Your task to perform on an android device: Go to sound settings Image 0: 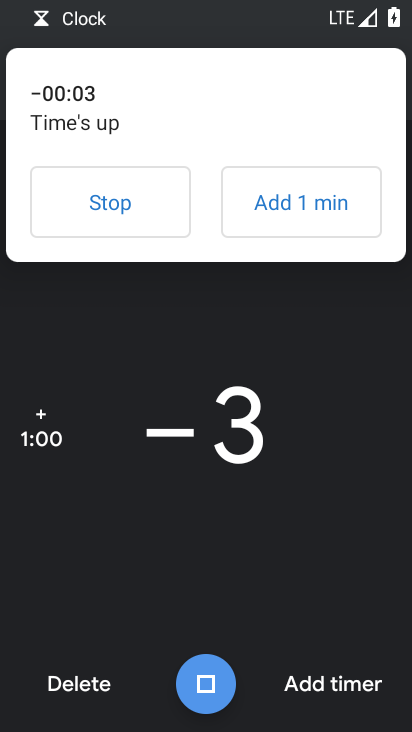
Step 0: click (131, 206)
Your task to perform on an android device: Go to sound settings Image 1: 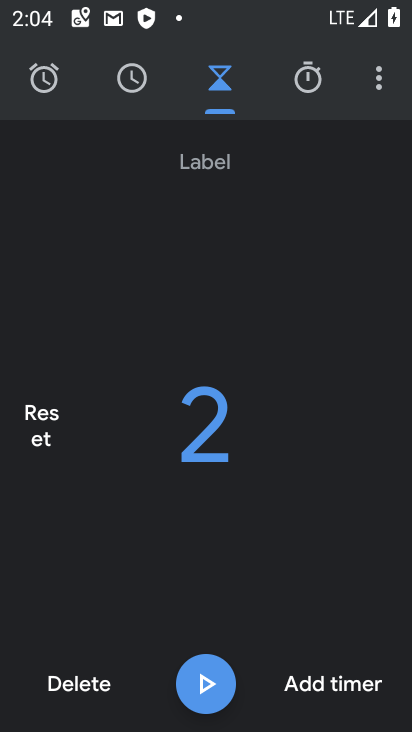
Step 1: press home button
Your task to perform on an android device: Go to sound settings Image 2: 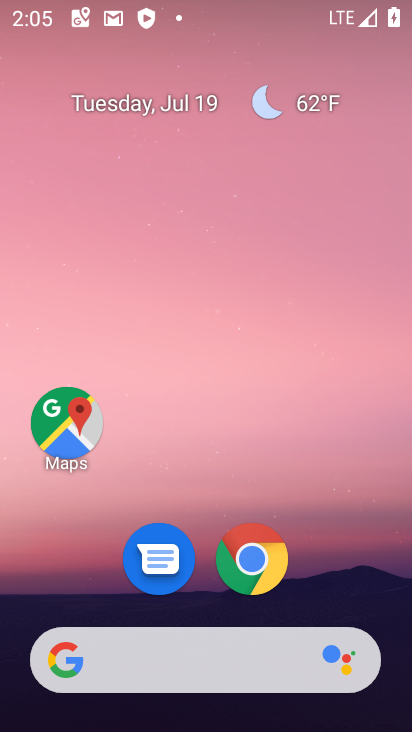
Step 2: drag from (208, 616) to (305, 63)
Your task to perform on an android device: Go to sound settings Image 3: 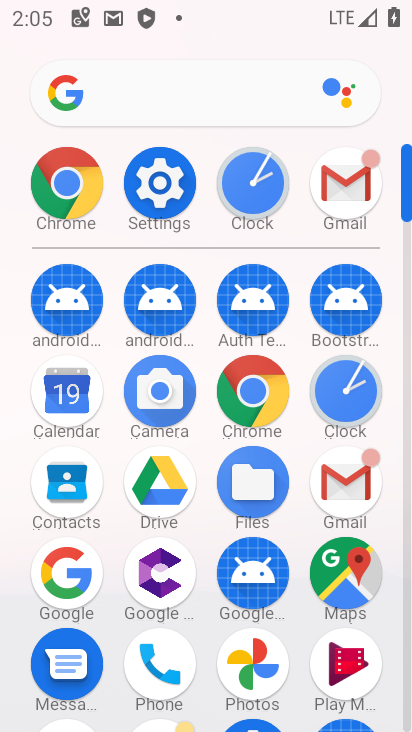
Step 3: click (175, 189)
Your task to perform on an android device: Go to sound settings Image 4: 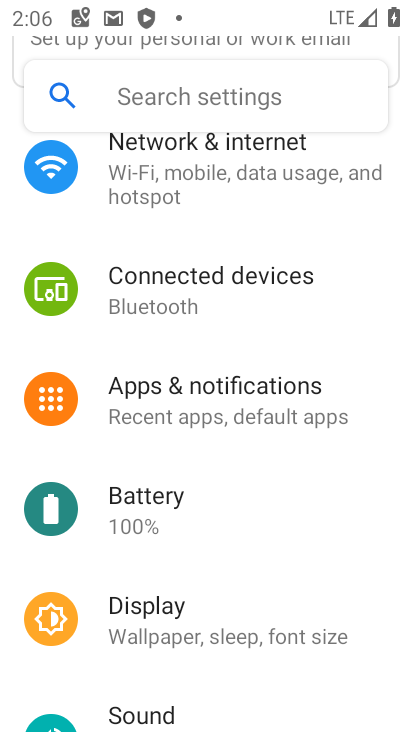
Step 4: drag from (359, 601) to (391, 365)
Your task to perform on an android device: Go to sound settings Image 5: 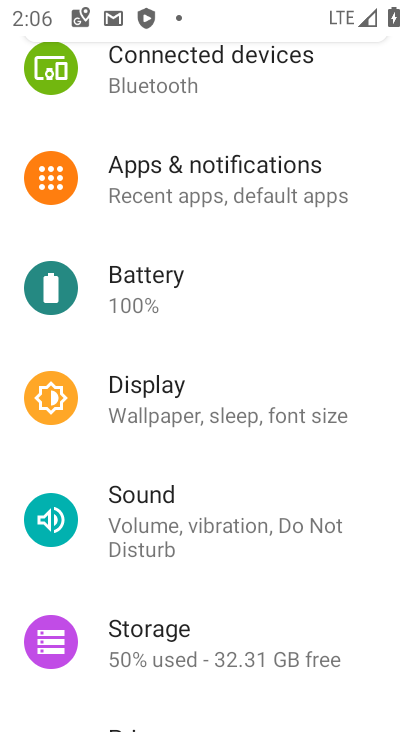
Step 5: click (189, 492)
Your task to perform on an android device: Go to sound settings Image 6: 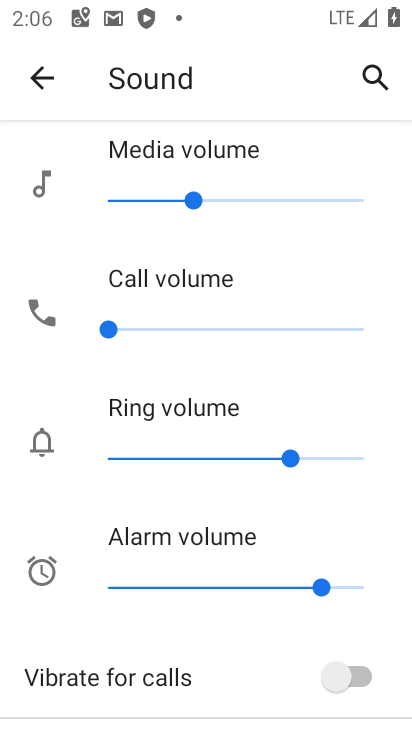
Step 6: task complete